Your task to perform on an android device: open chrome privacy settings Image 0: 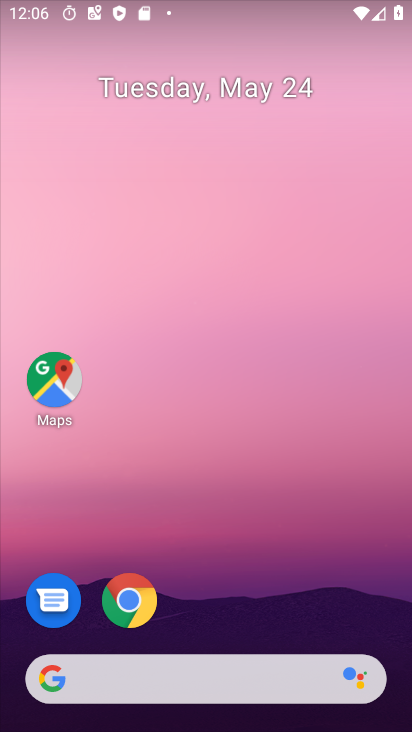
Step 0: click (127, 598)
Your task to perform on an android device: open chrome privacy settings Image 1: 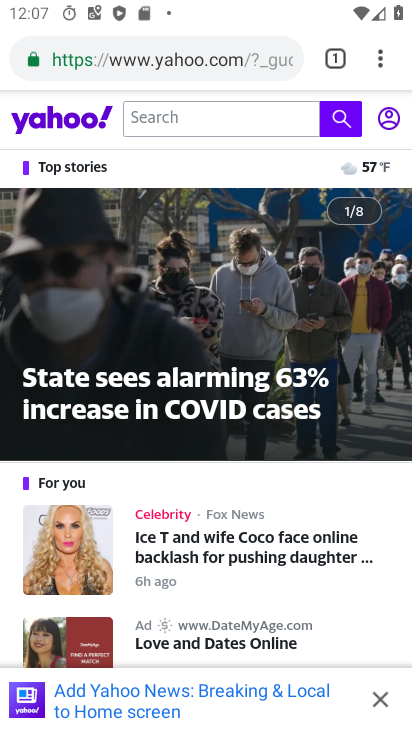
Step 1: click (381, 63)
Your task to perform on an android device: open chrome privacy settings Image 2: 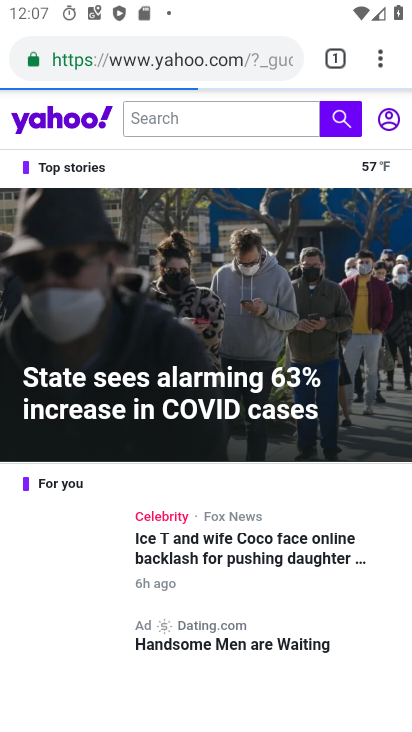
Step 2: drag from (380, 63) to (220, 623)
Your task to perform on an android device: open chrome privacy settings Image 3: 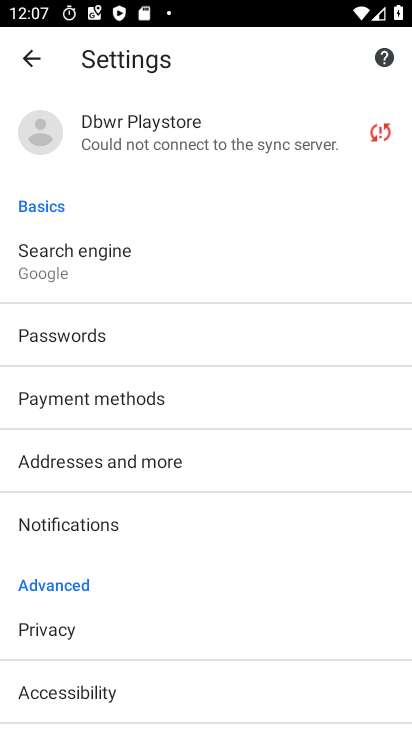
Step 3: drag from (150, 527) to (207, 250)
Your task to perform on an android device: open chrome privacy settings Image 4: 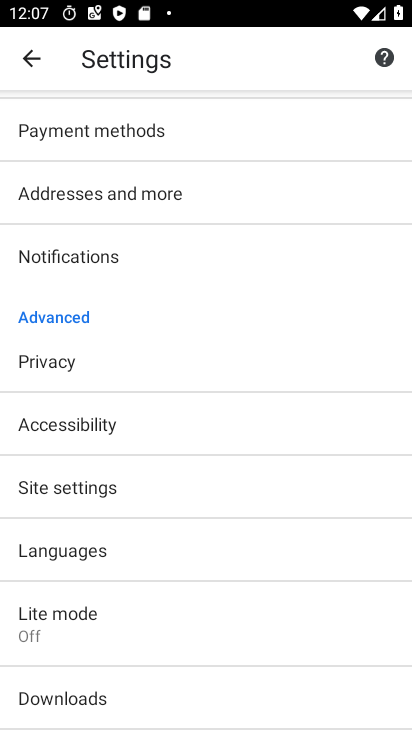
Step 4: click (73, 353)
Your task to perform on an android device: open chrome privacy settings Image 5: 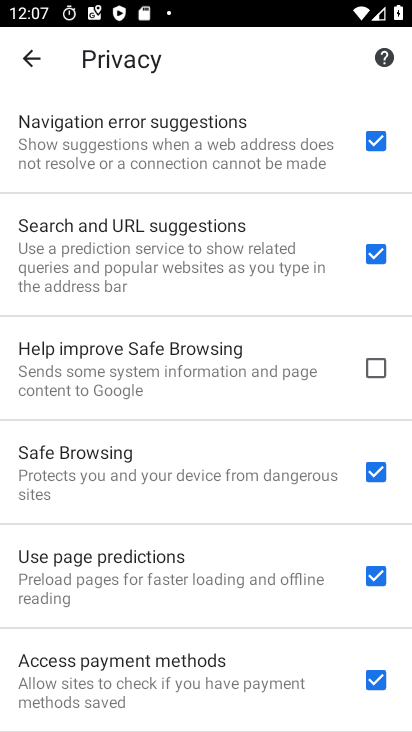
Step 5: task complete